Your task to perform on an android device: toggle data saver in the chrome app Image 0: 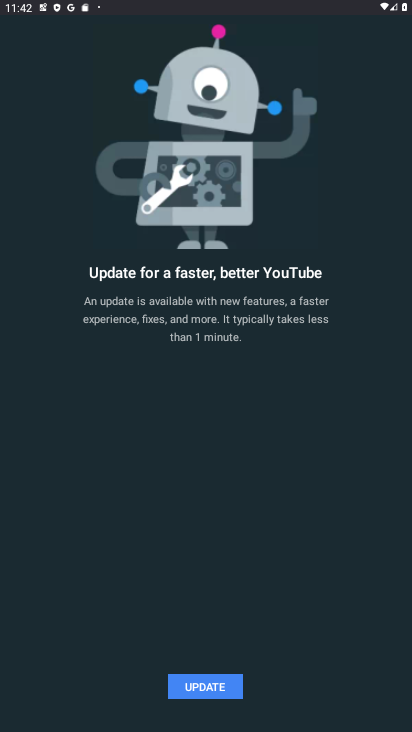
Step 0: press home button
Your task to perform on an android device: toggle data saver in the chrome app Image 1: 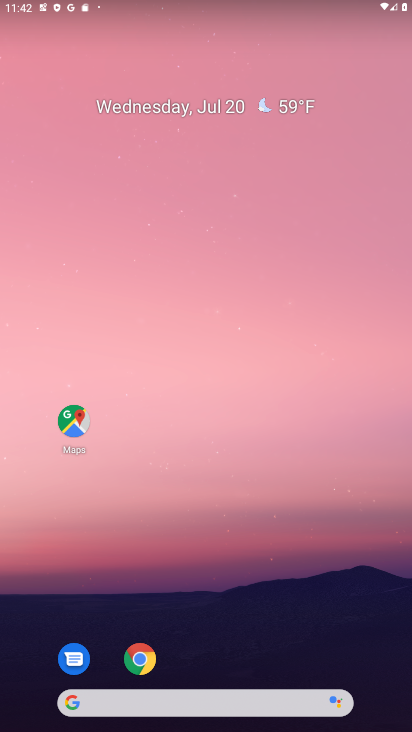
Step 1: click (145, 657)
Your task to perform on an android device: toggle data saver in the chrome app Image 2: 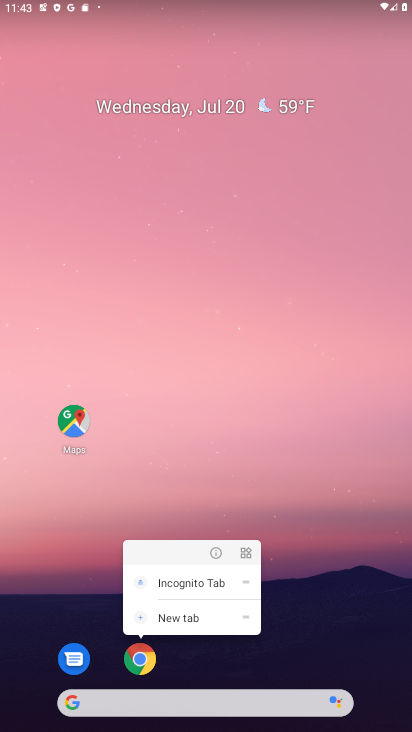
Step 2: click (145, 657)
Your task to perform on an android device: toggle data saver in the chrome app Image 3: 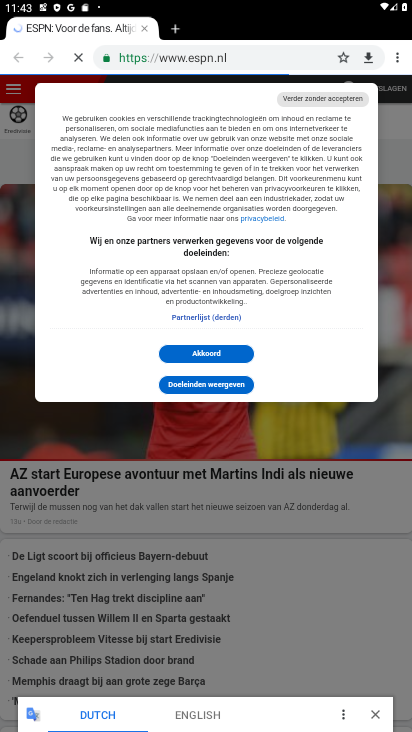
Step 3: click (397, 55)
Your task to perform on an android device: toggle data saver in the chrome app Image 4: 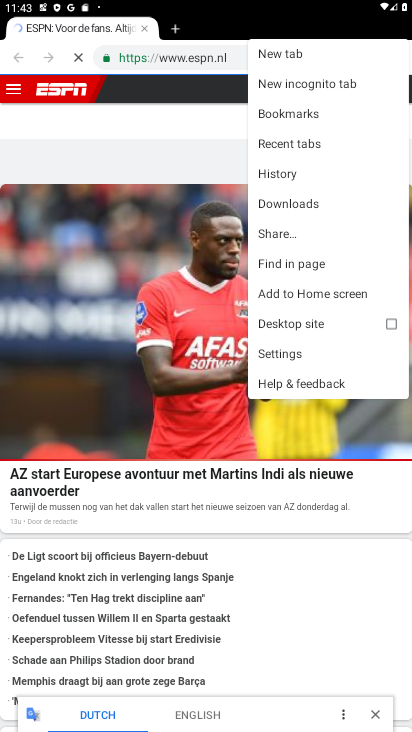
Step 4: click (275, 355)
Your task to perform on an android device: toggle data saver in the chrome app Image 5: 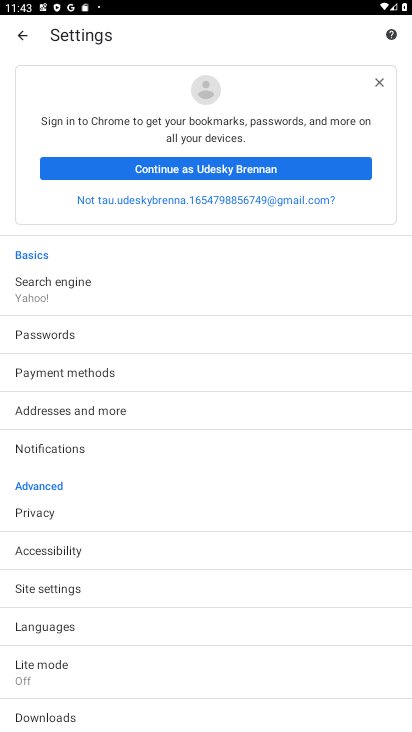
Step 5: drag from (22, 526) to (138, 314)
Your task to perform on an android device: toggle data saver in the chrome app Image 6: 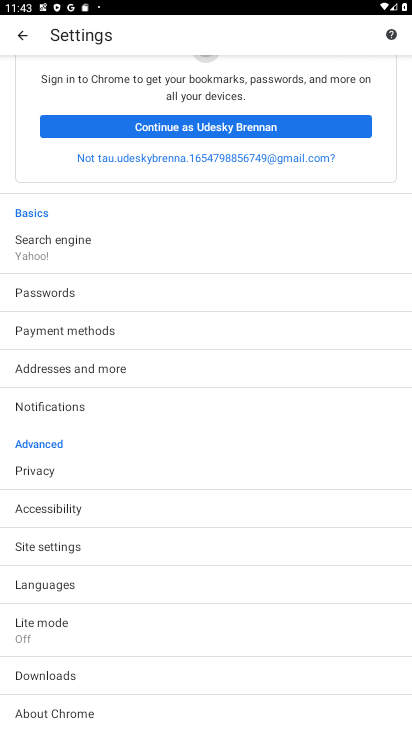
Step 6: click (35, 625)
Your task to perform on an android device: toggle data saver in the chrome app Image 7: 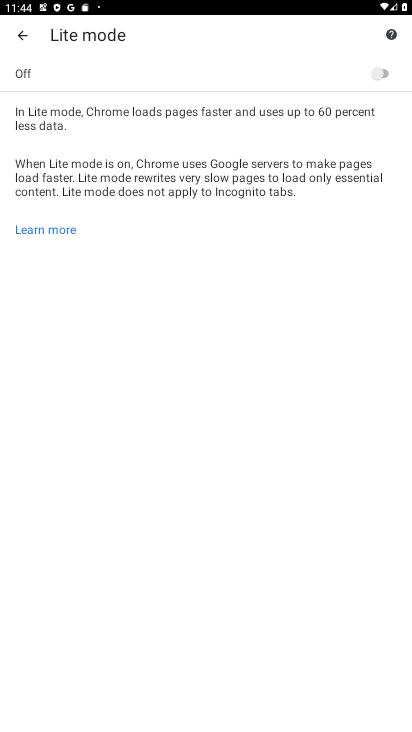
Step 7: click (377, 73)
Your task to perform on an android device: toggle data saver in the chrome app Image 8: 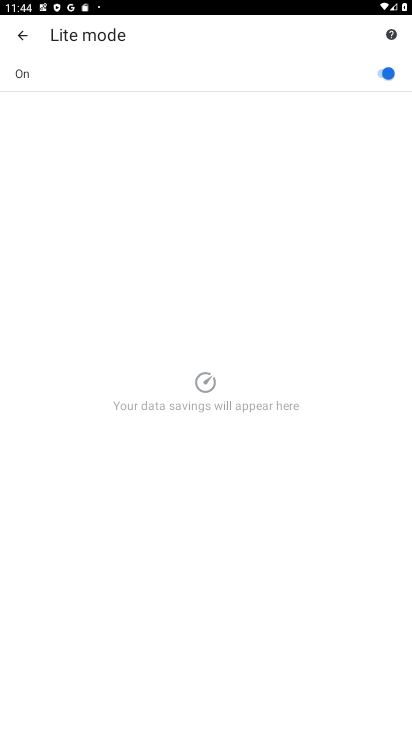
Step 8: task complete